Your task to perform on an android device: turn off notifications settings in the gmail app Image 0: 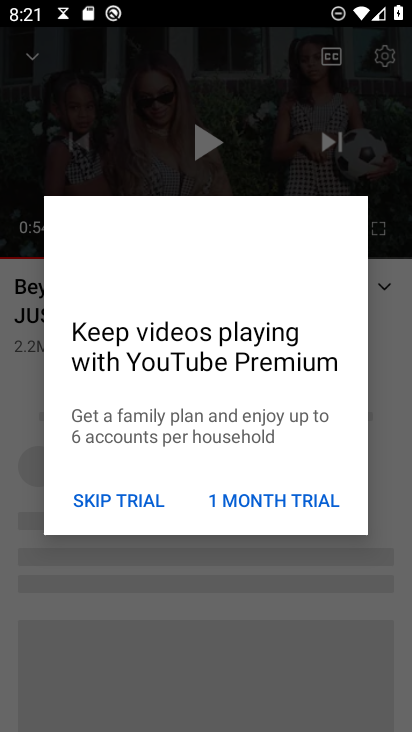
Step 0: press home button
Your task to perform on an android device: turn off notifications settings in the gmail app Image 1: 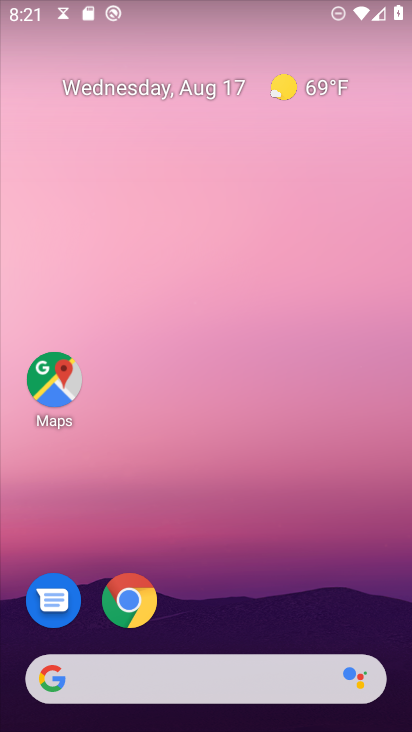
Step 1: drag from (263, 614) to (271, 113)
Your task to perform on an android device: turn off notifications settings in the gmail app Image 2: 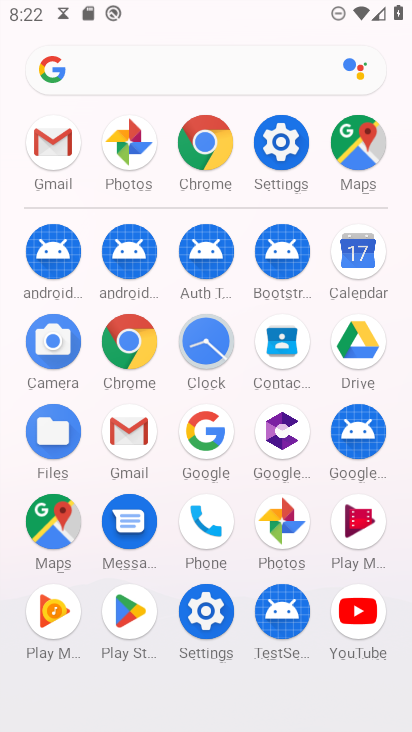
Step 2: click (62, 150)
Your task to perform on an android device: turn off notifications settings in the gmail app Image 3: 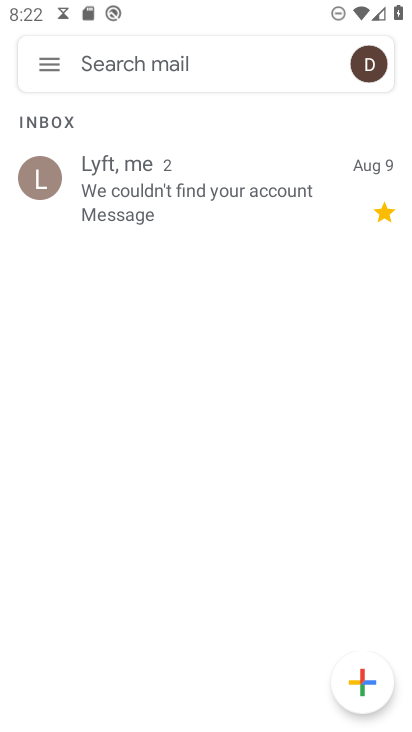
Step 3: click (45, 64)
Your task to perform on an android device: turn off notifications settings in the gmail app Image 4: 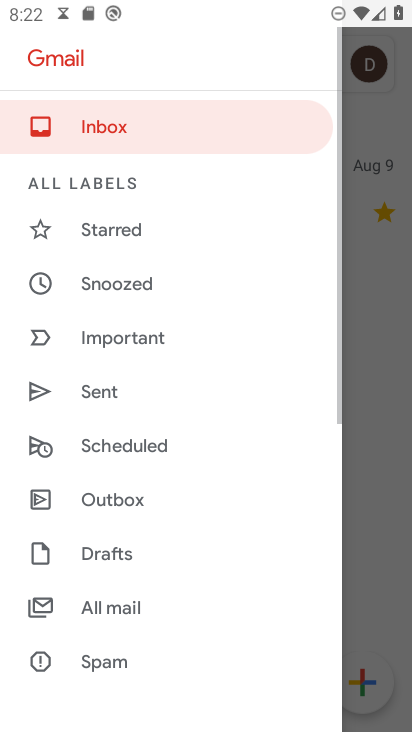
Step 4: drag from (178, 626) to (163, 142)
Your task to perform on an android device: turn off notifications settings in the gmail app Image 5: 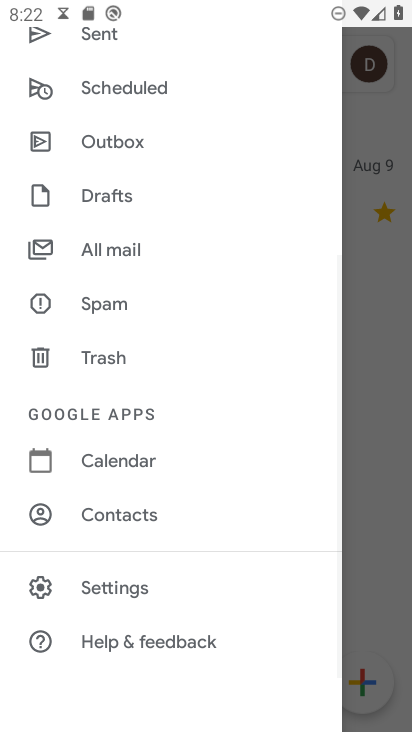
Step 5: click (115, 578)
Your task to perform on an android device: turn off notifications settings in the gmail app Image 6: 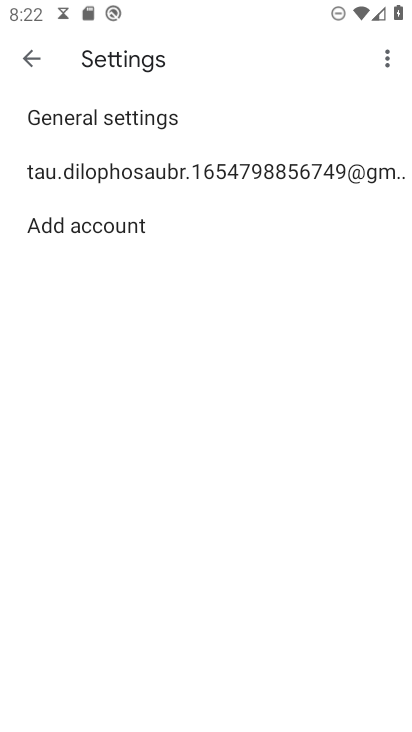
Step 6: click (105, 172)
Your task to perform on an android device: turn off notifications settings in the gmail app Image 7: 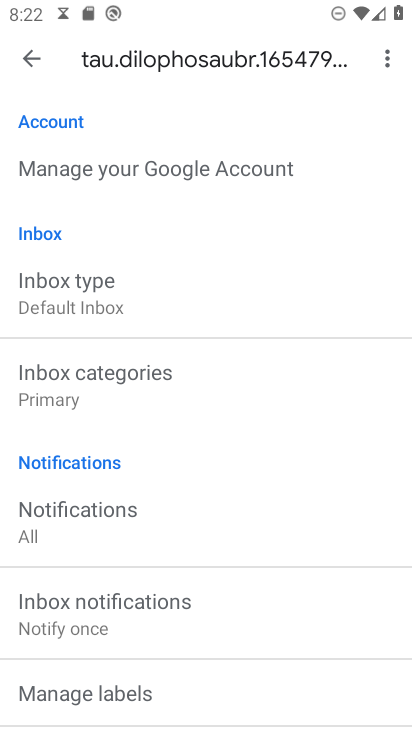
Step 7: drag from (221, 645) to (209, 337)
Your task to perform on an android device: turn off notifications settings in the gmail app Image 8: 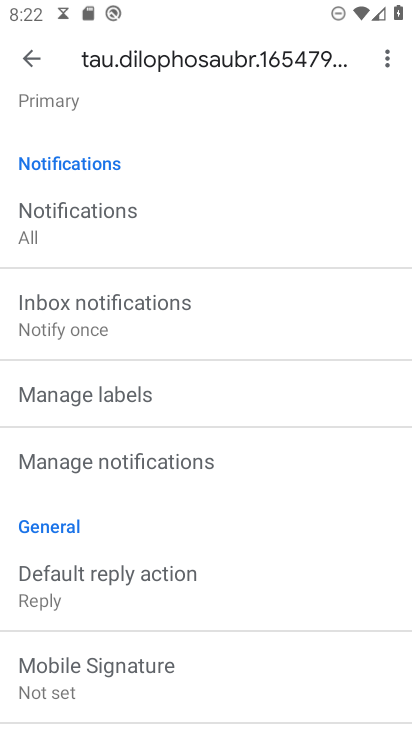
Step 8: click (82, 463)
Your task to perform on an android device: turn off notifications settings in the gmail app Image 9: 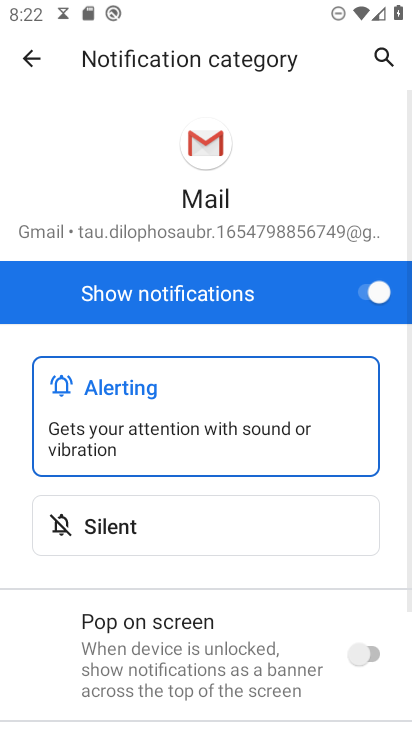
Step 9: click (375, 291)
Your task to perform on an android device: turn off notifications settings in the gmail app Image 10: 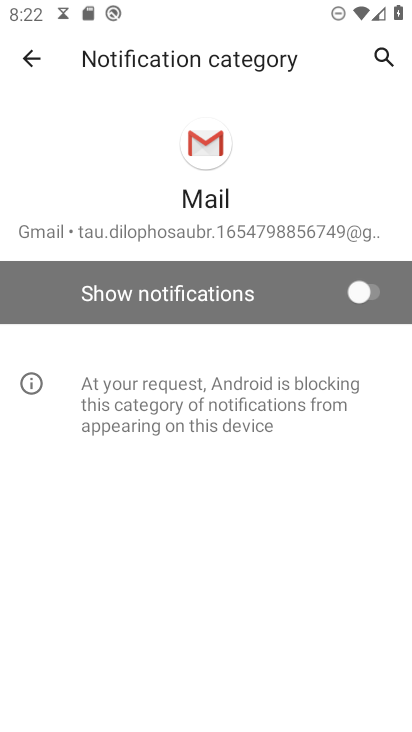
Step 10: task complete